Your task to perform on an android device: Search for Mexican restaurants on Maps Image 0: 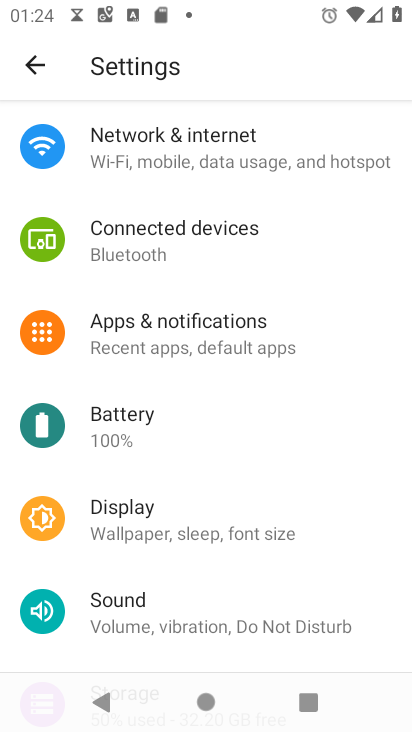
Step 0: press home button
Your task to perform on an android device: Search for Mexican restaurants on Maps Image 1: 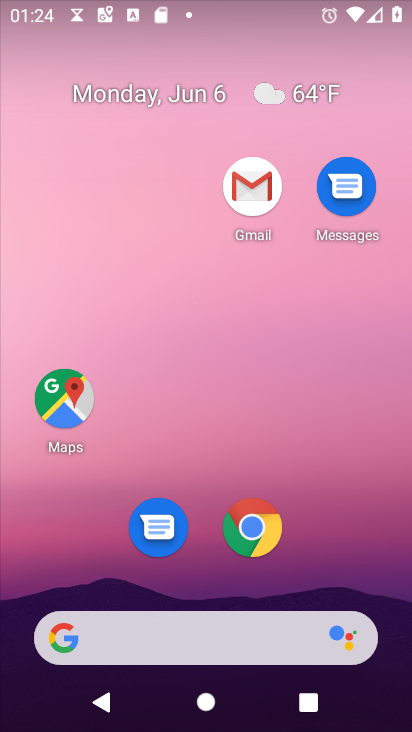
Step 1: click (68, 409)
Your task to perform on an android device: Search for Mexican restaurants on Maps Image 2: 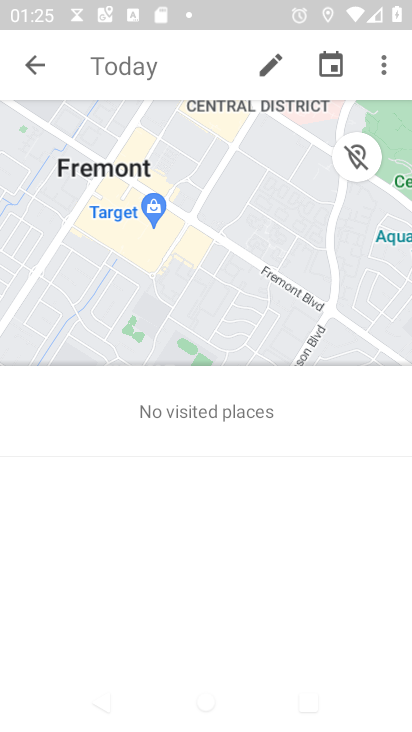
Step 2: click (34, 64)
Your task to perform on an android device: Search for Mexican restaurants on Maps Image 3: 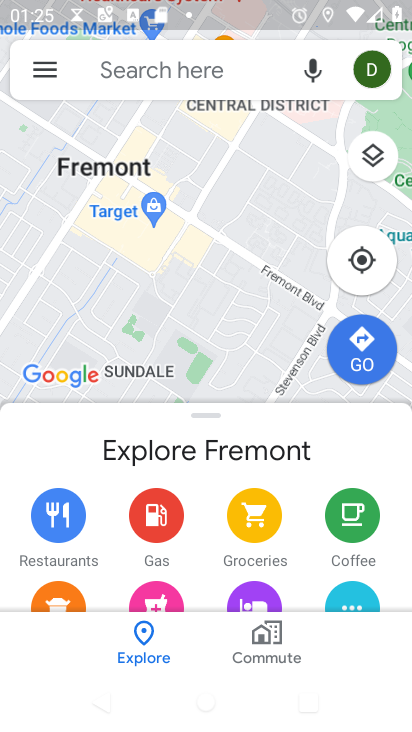
Step 3: click (131, 70)
Your task to perform on an android device: Search for Mexican restaurants on Maps Image 4: 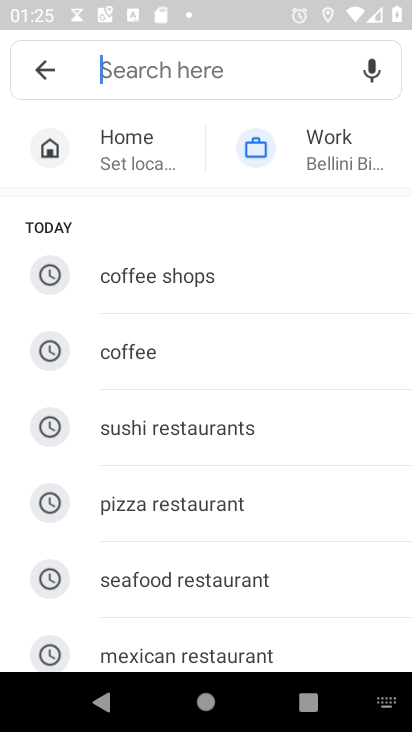
Step 4: click (207, 654)
Your task to perform on an android device: Search for Mexican restaurants on Maps Image 5: 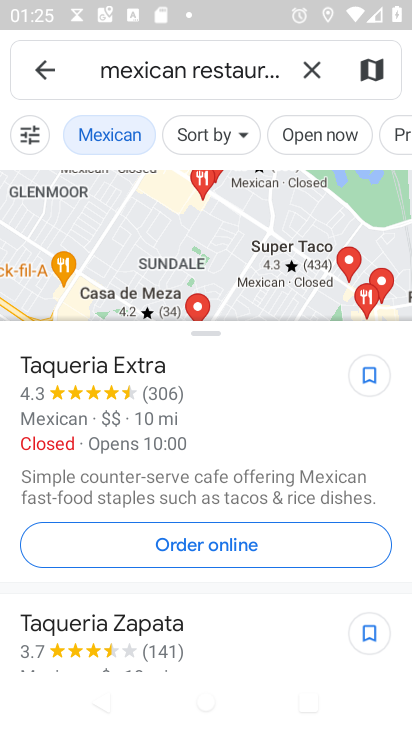
Step 5: task complete